Your task to perform on an android device: turn off notifications in google photos Image 0: 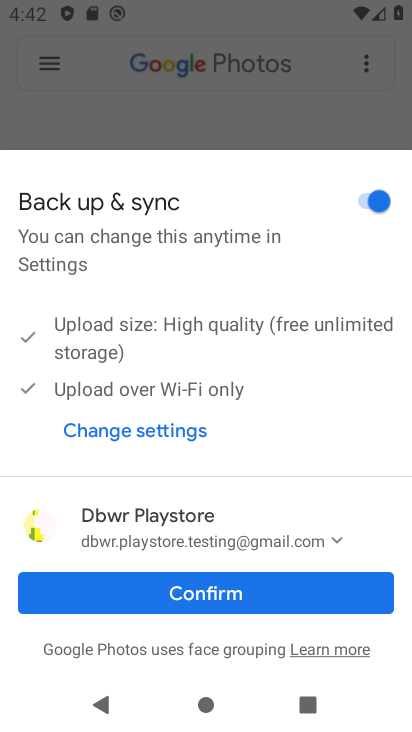
Step 0: click (143, 600)
Your task to perform on an android device: turn off notifications in google photos Image 1: 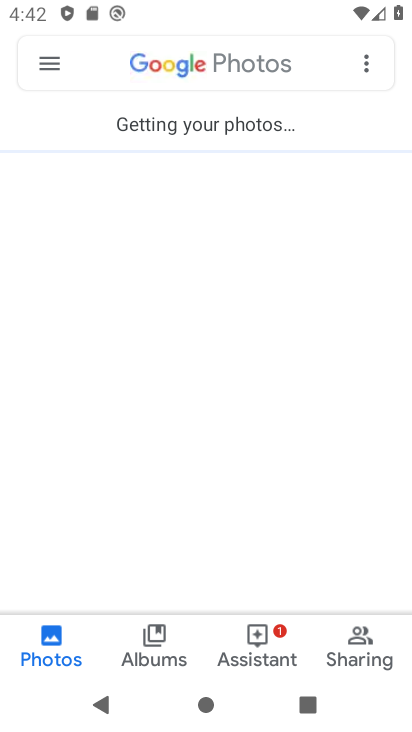
Step 1: click (57, 57)
Your task to perform on an android device: turn off notifications in google photos Image 2: 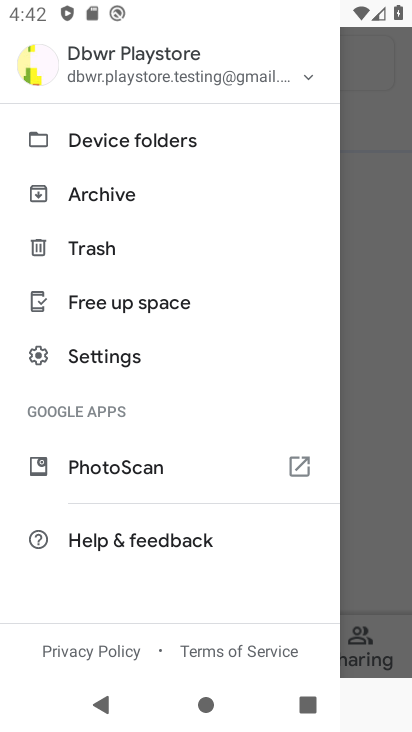
Step 2: click (123, 372)
Your task to perform on an android device: turn off notifications in google photos Image 3: 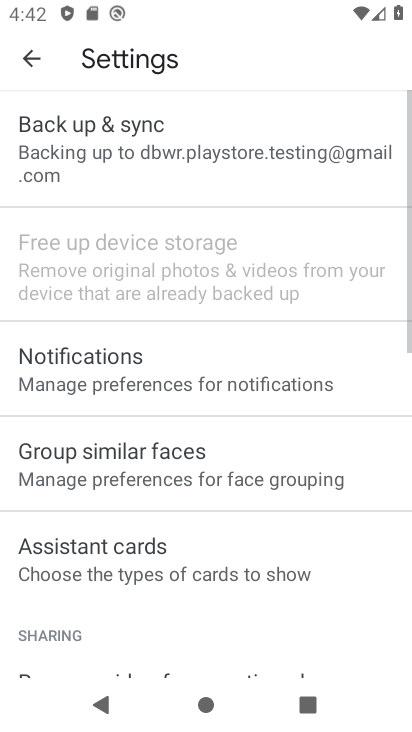
Step 3: click (123, 371)
Your task to perform on an android device: turn off notifications in google photos Image 4: 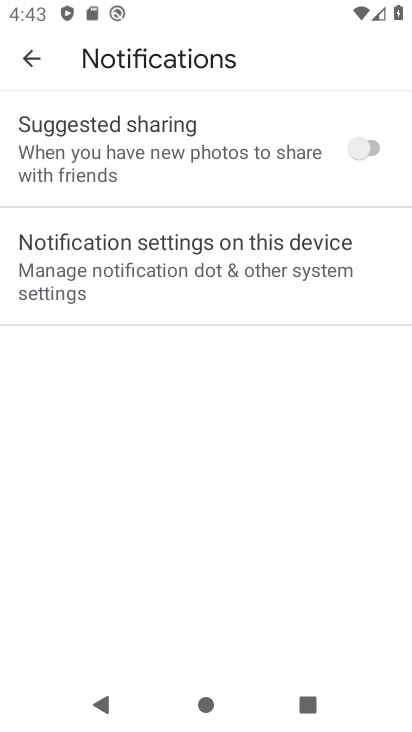
Step 4: click (203, 258)
Your task to perform on an android device: turn off notifications in google photos Image 5: 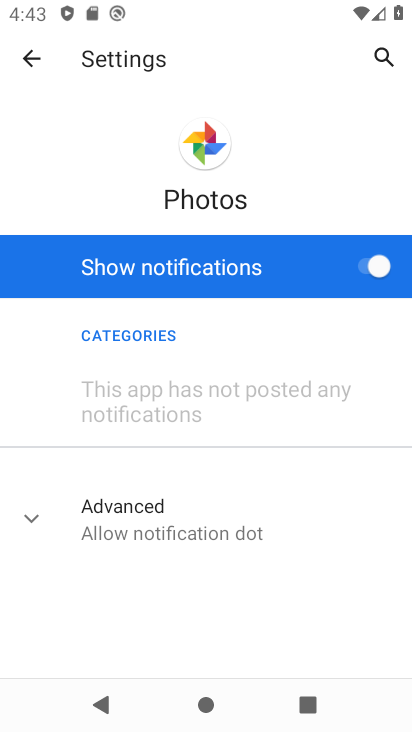
Step 5: click (378, 275)
Your task to perform on an android device: turn off notifications in google photos Image 6: 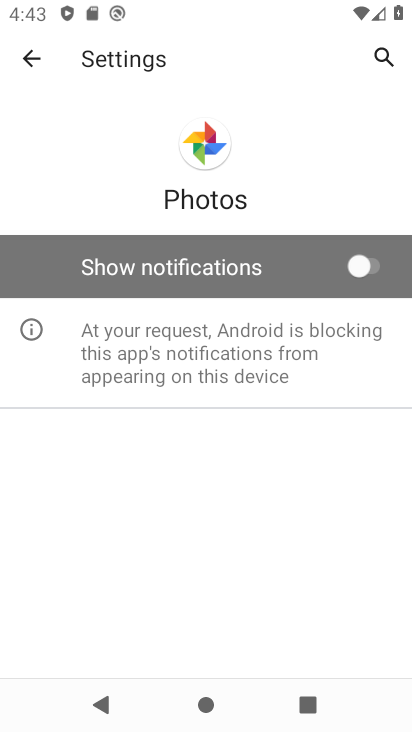
Step 6: task complete